Your task to perform on an android device: toggle pop-ups in chrome Image 0: 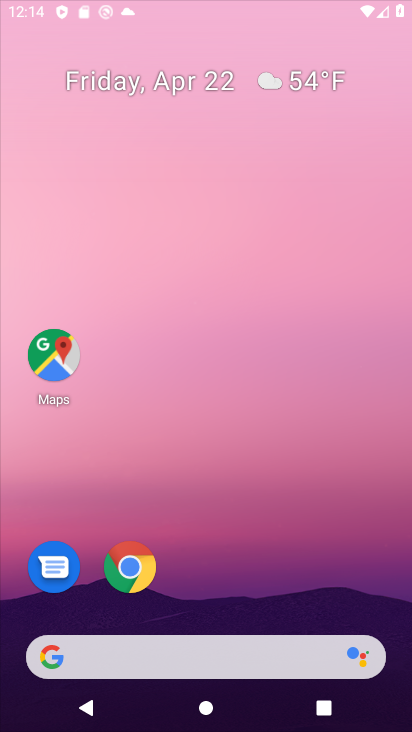
Step 0: click (234, 244)
Your task to perform on an android device: toggle pop-ups in chrome Image 1: 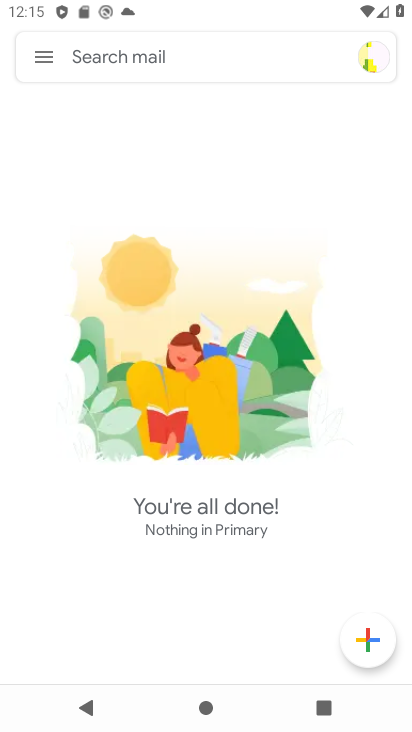
Step 1: press home button
Your task to perform on an android device: toggle pop-ups in chrome Image 2: 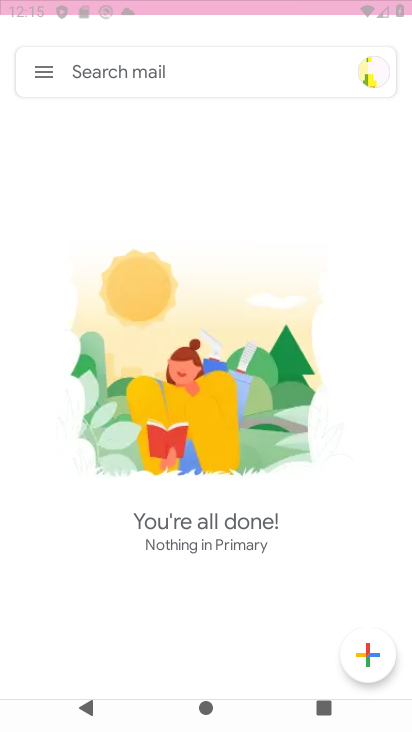
Step 2: press home button
Your task to perform on an android device: toggle pop-ups in chrome Image 3: 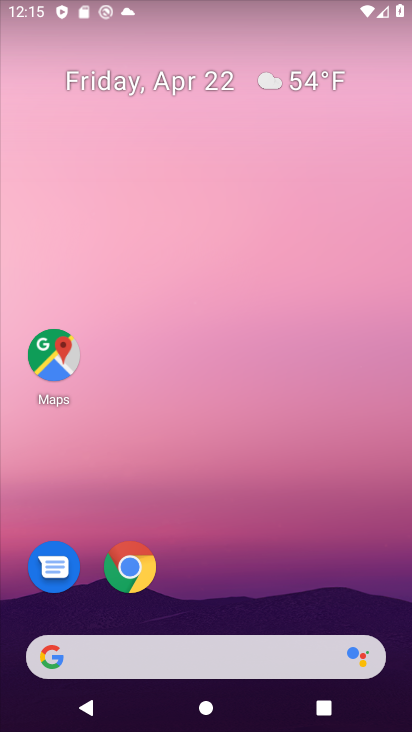
Step 3: drag from (264, 437) to (353, 116)
Your task to perform on an android device: toggle pop-ups in chrome Image 4: 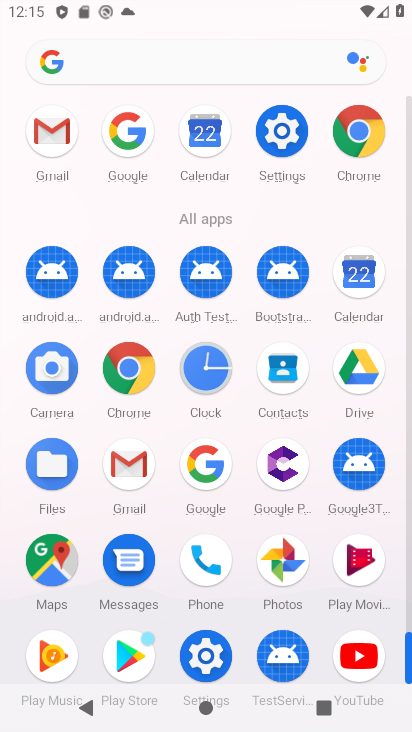
Step 4: click (362, 172)
Your task to perform on an android device: toggle pop-ups in chrome Image 5: 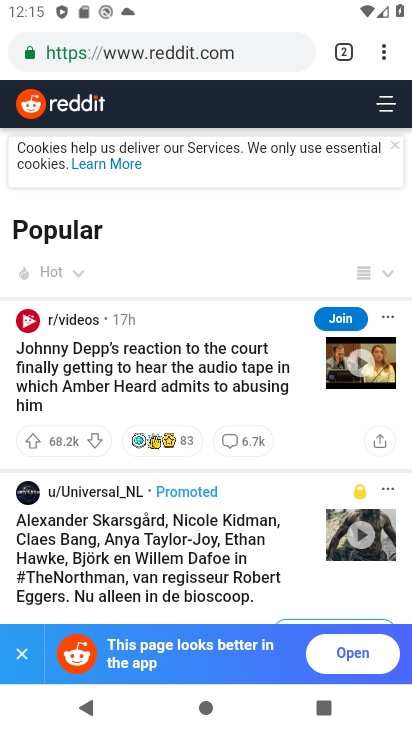
Step 5: click (390, 64)
Your task to perform on an android device: toggle pop-ups in chrome Image 6: 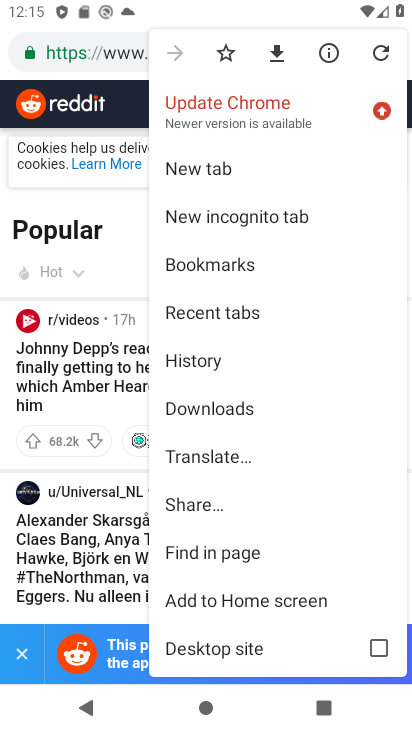
Step 6: drag from (285, 523) to (298, 106)
Your task to perform on an android device: toggle pop-ups in chrome Image 7: 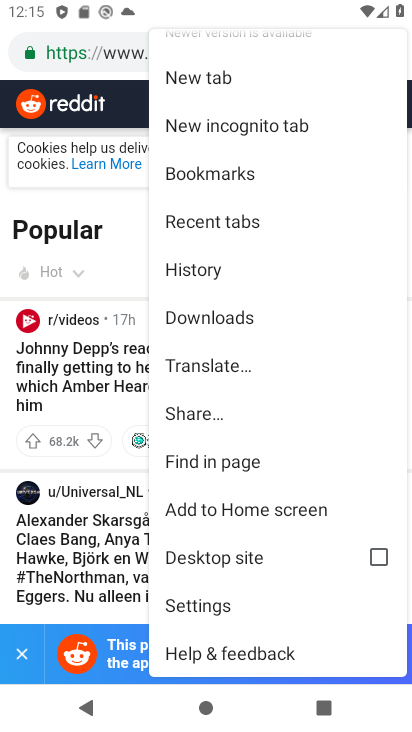
Step 7: click (231, 609)
Your task to perform on an android device: toggle pop-ups in chrome Image 8: 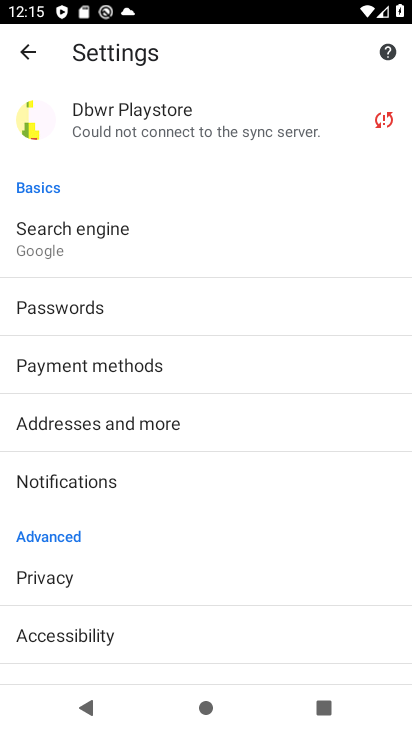
Step 8: drag from (238, 511) to (271, 266)
Your task to perform on an android device: toggle pop-ups in chrome Image 9: 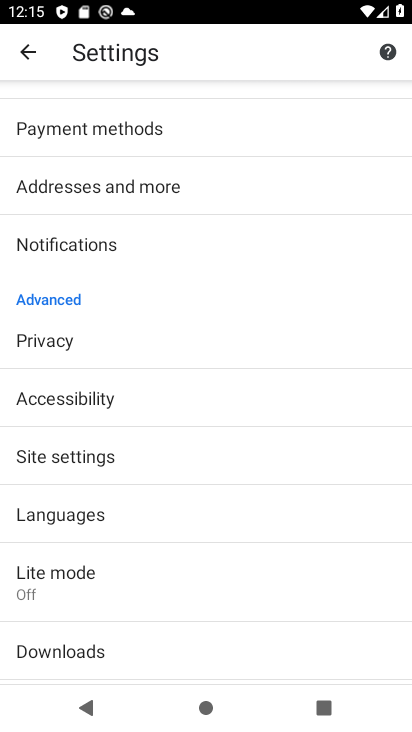
Step 9: drag from (246, 417) to (282, 220)
Your task to perform on an android device: toggle pop-ups in chrome Image 10: 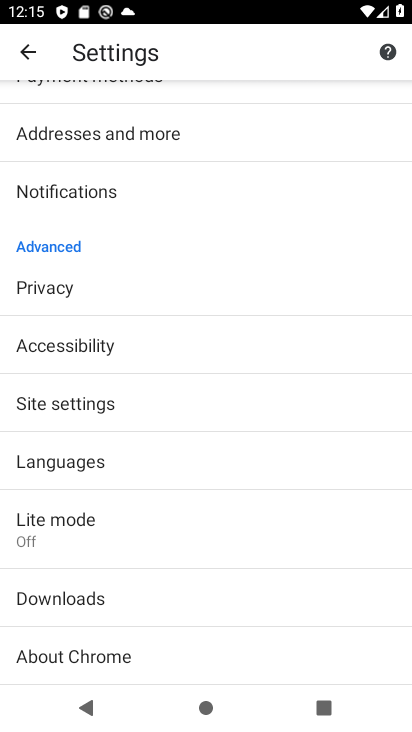
Step 10: click (151, 402)
Your task to perform on an android device: toggle pop-ups in chrome Image 11: 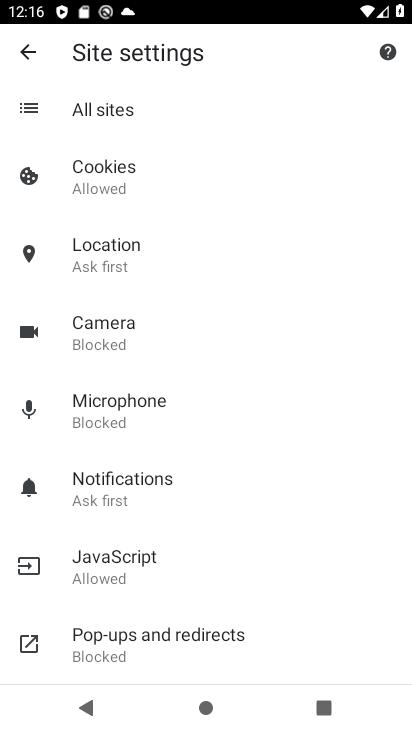
Step 11: drag from (182, 520) to (220, 256)
Your task to perform on an android device: toggle pop-ups in chrome Image 12: 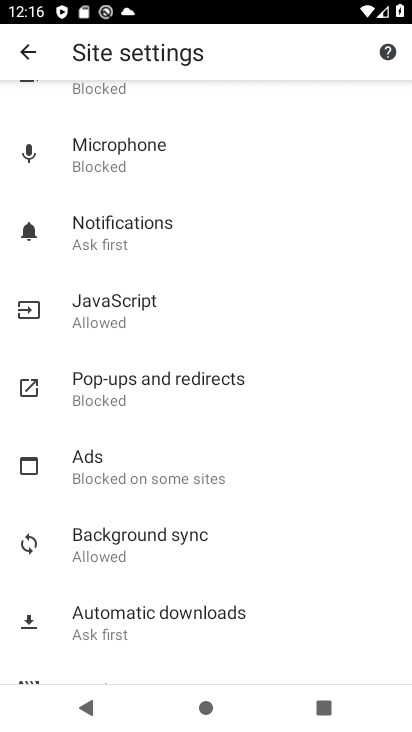
Step 12: drag from (208, 462) to (234, 290)
Your task to perform on an android device: toggle pop-ups in chrome Image 13: 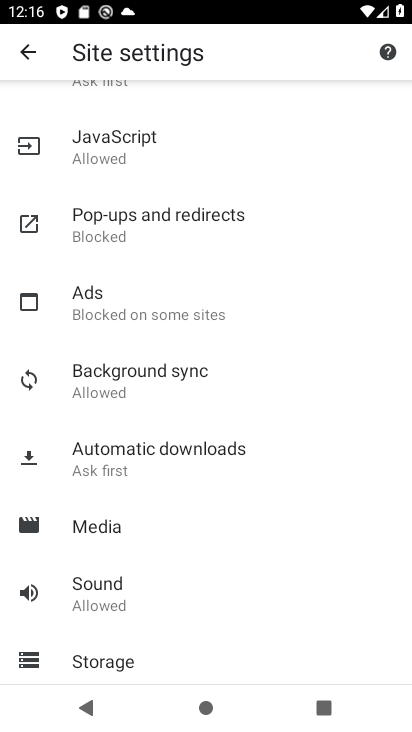
Step 13: drag from (205, 421) to (215, 358)
Your task to perform on an android device: toggle pop-ups in chrome Image 14: 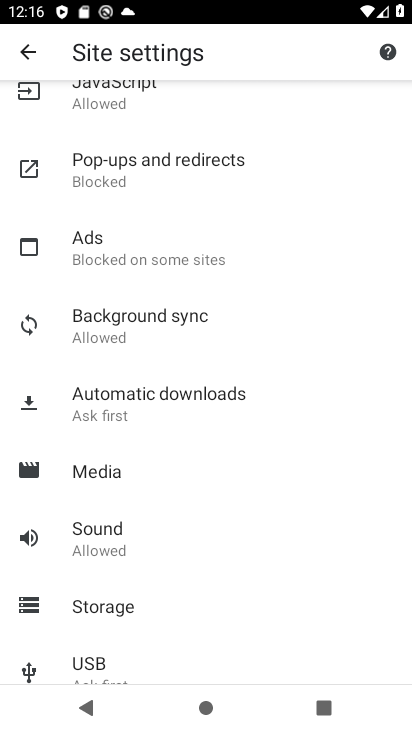
Step 14: click (241, 187)
Your task to perform on an android device: toggle pop-ups in chrome Image 15: 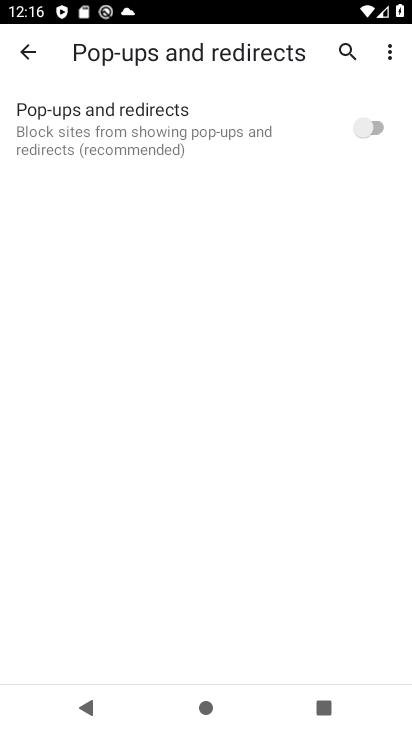
Step 15: click (369, 125)
Your task to perform on an android device: toggle pop-ups in chrome Image 16: 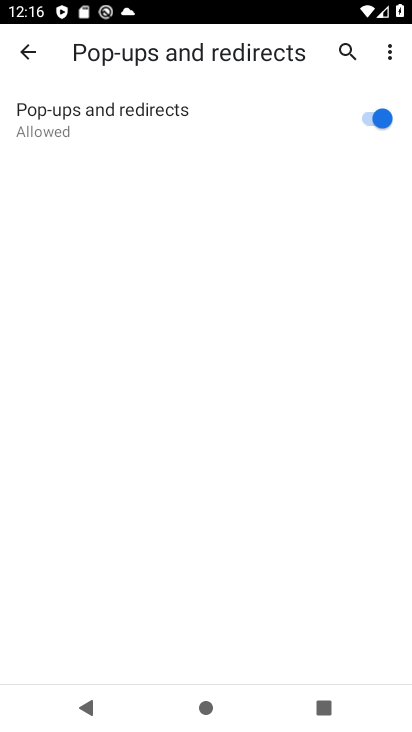
Step 16: task complete